Your task to perform on an android device: add a contact Image 0: 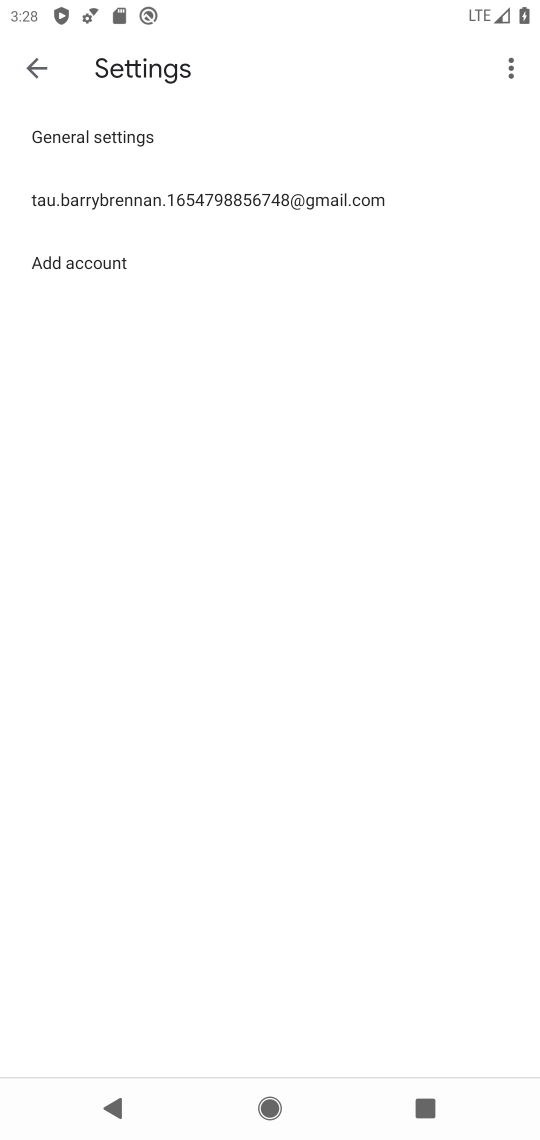
Step 0: press home button
Your task to perform on an android device: add a contact Image 1: 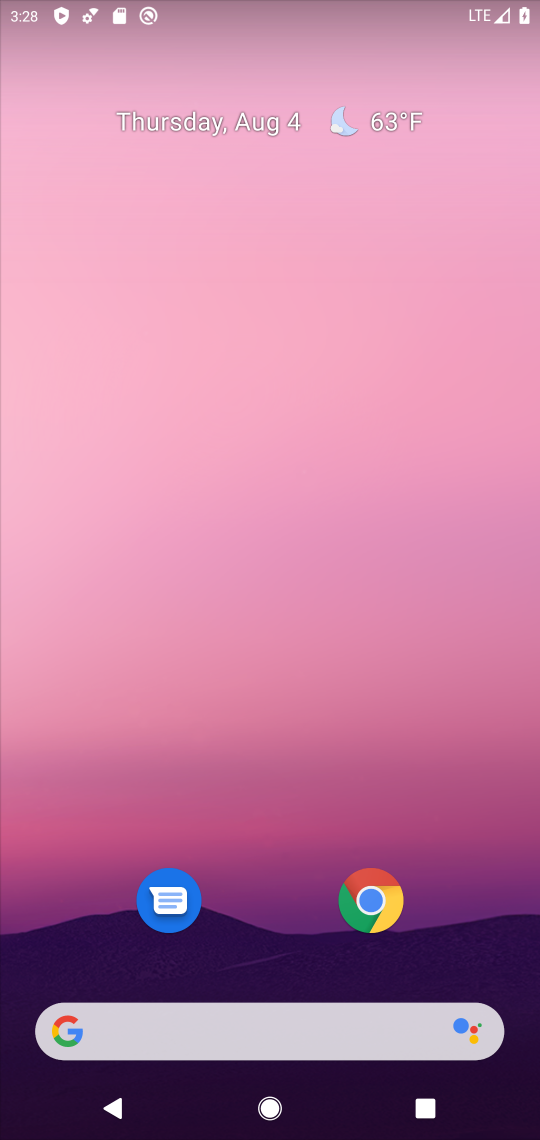
Step 1: drag from (510, 944) to (347, 166)
Your task to perform on an android device: add a contact Image 2: 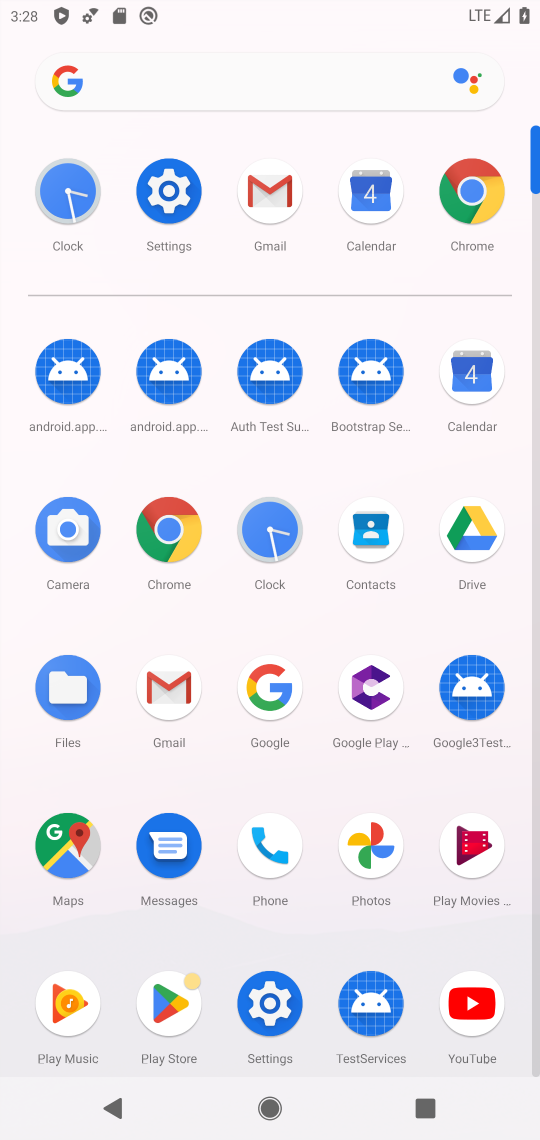
Step 2: click (389, 518)
Your task to perform on an android device: add a contact Image 3: 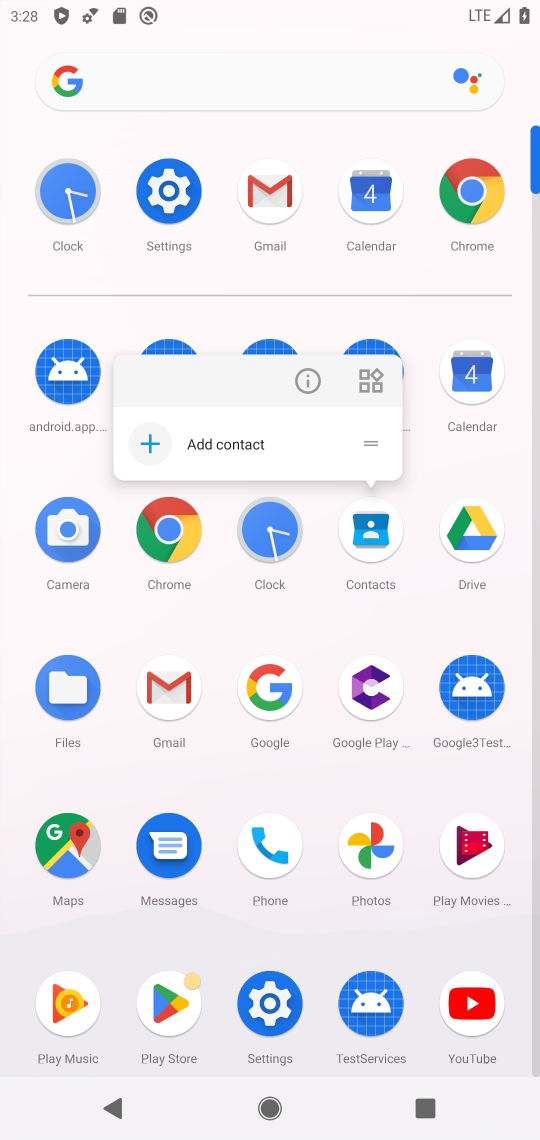
Step 3: click (389, 518)
Your task to perform on an android device: add a contact Image 4: 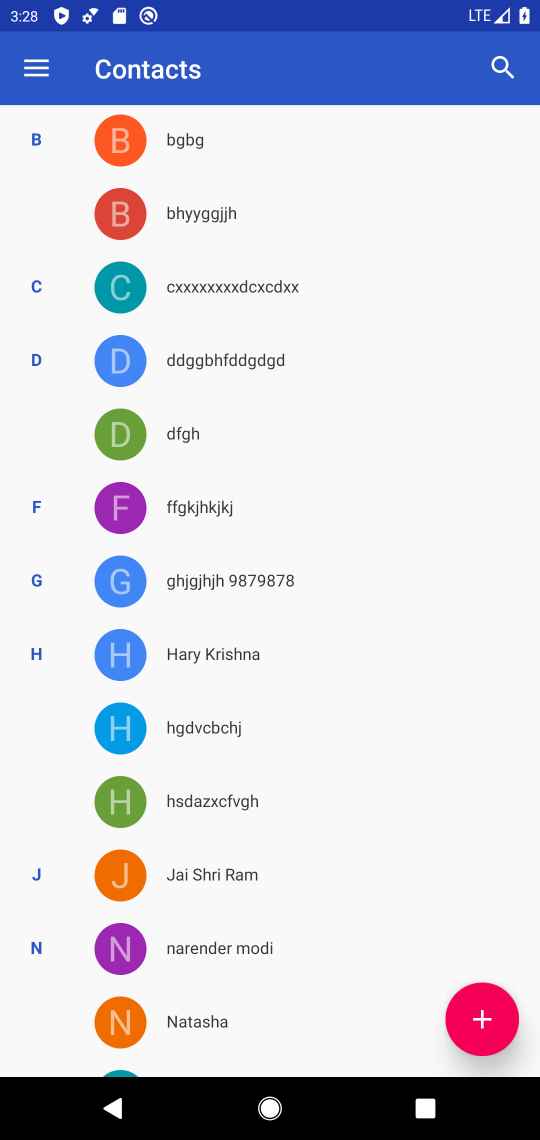
Step 4: click (484, 1019)
Your task to perform on an android device: add a contact Image 5: 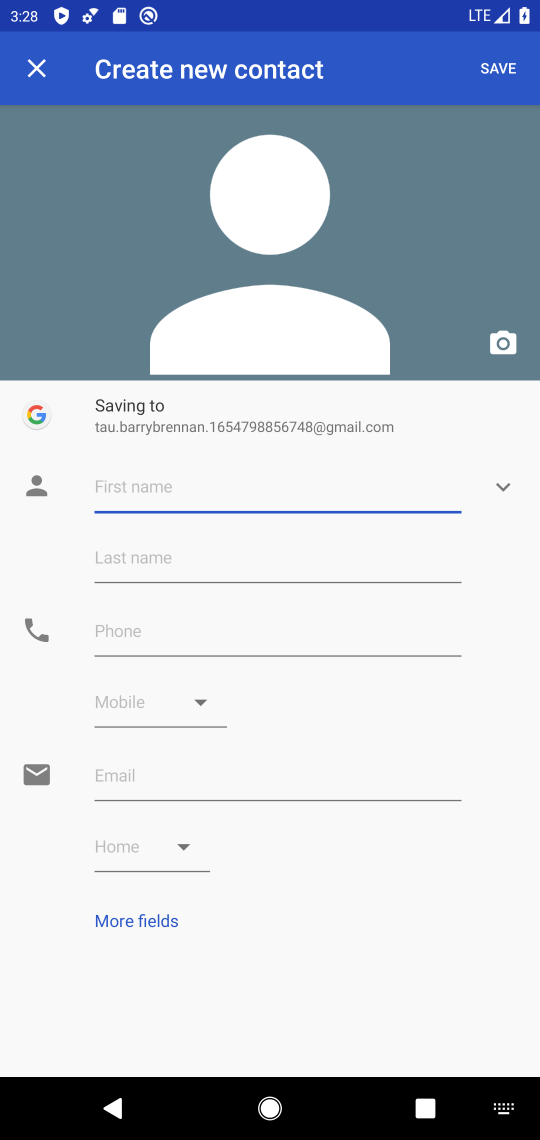
Step 5: click (268, 454)
Your task to perform on an android device: add a contact Image 6: 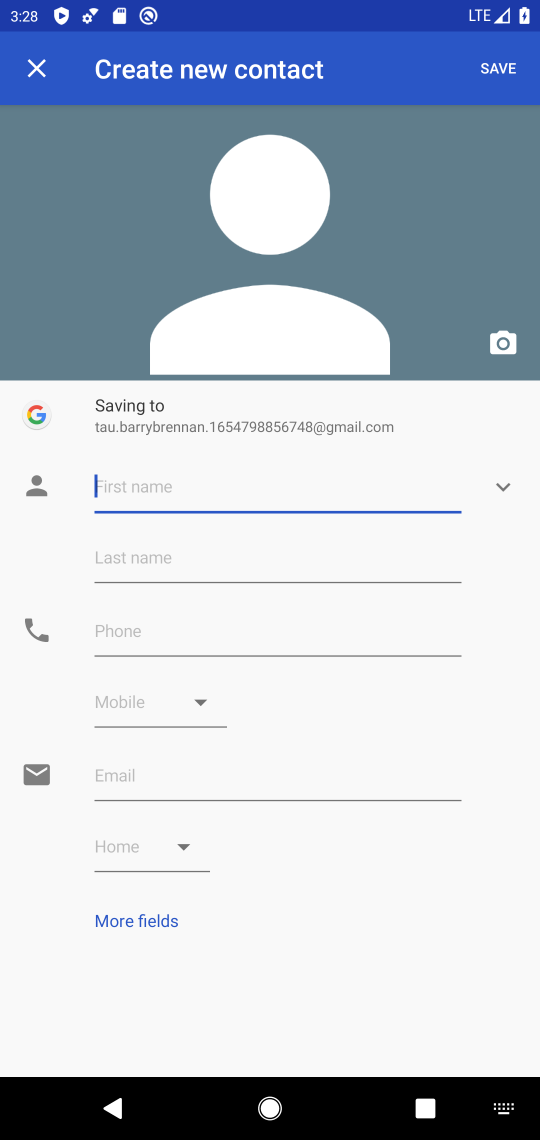
Step 6: type "njk kn"
Your task to perform on an android device: add a contact Image 7: 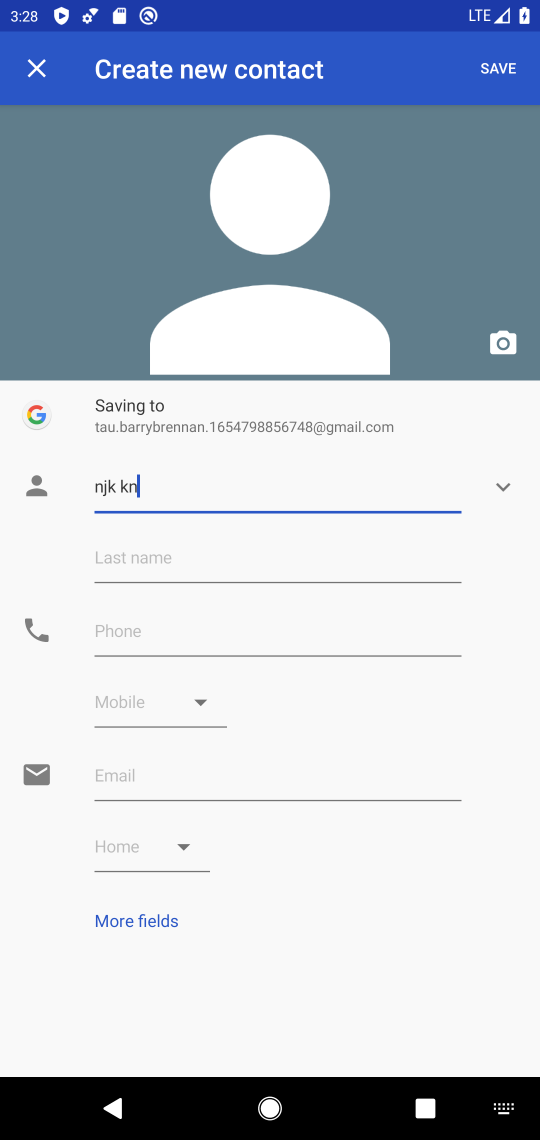
Step 7: click (425, 638)
Your task to perform on an android device: add a contact Image 8: 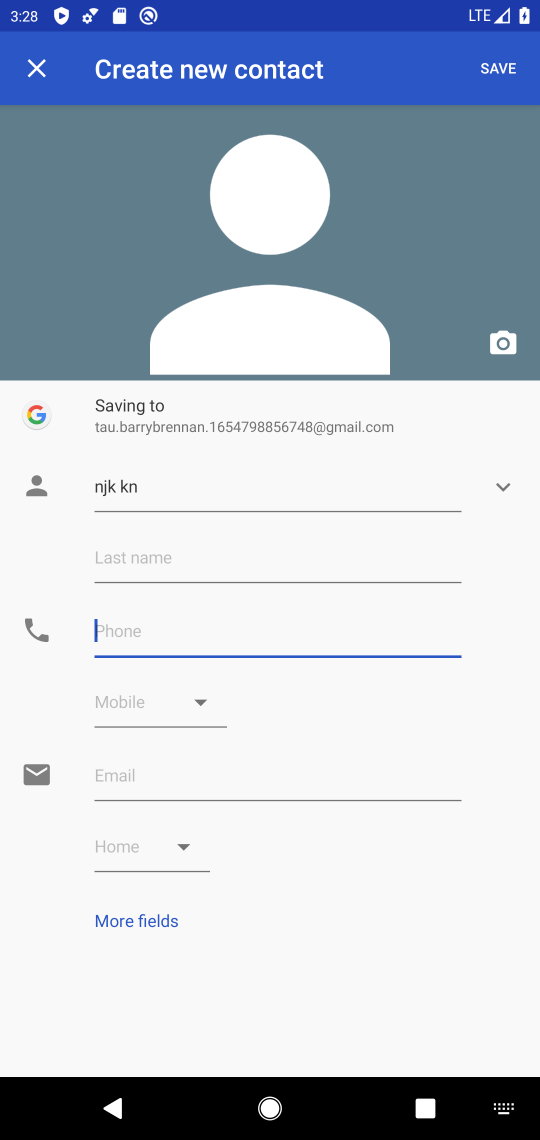
Step 8: type "798798"
Your task to perform on an android device: add a contact Image 9: 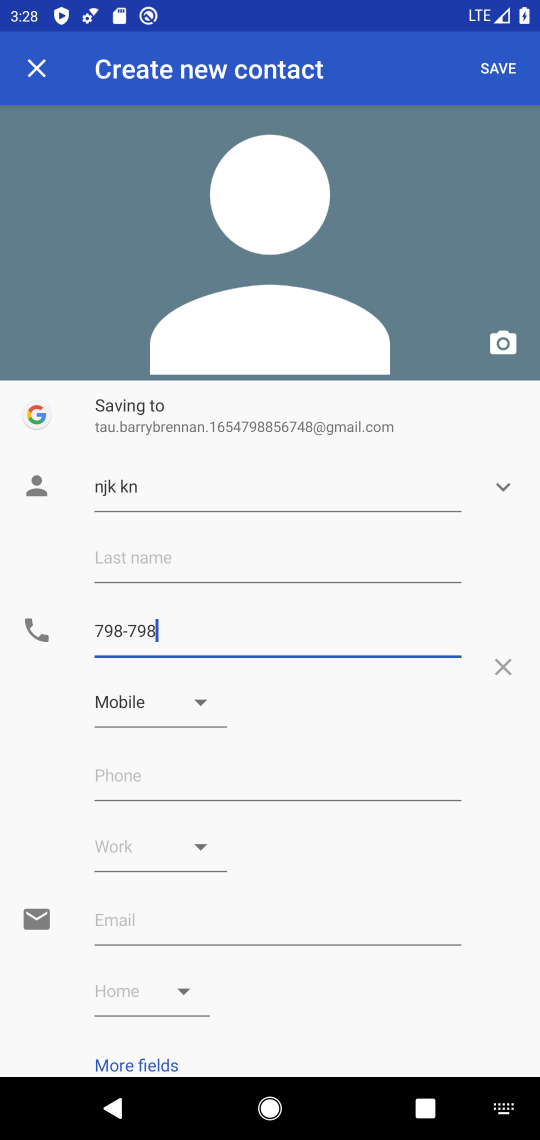
Step 9: click (500, 80)
Your task to perform on an android device: add a contact Image 10: 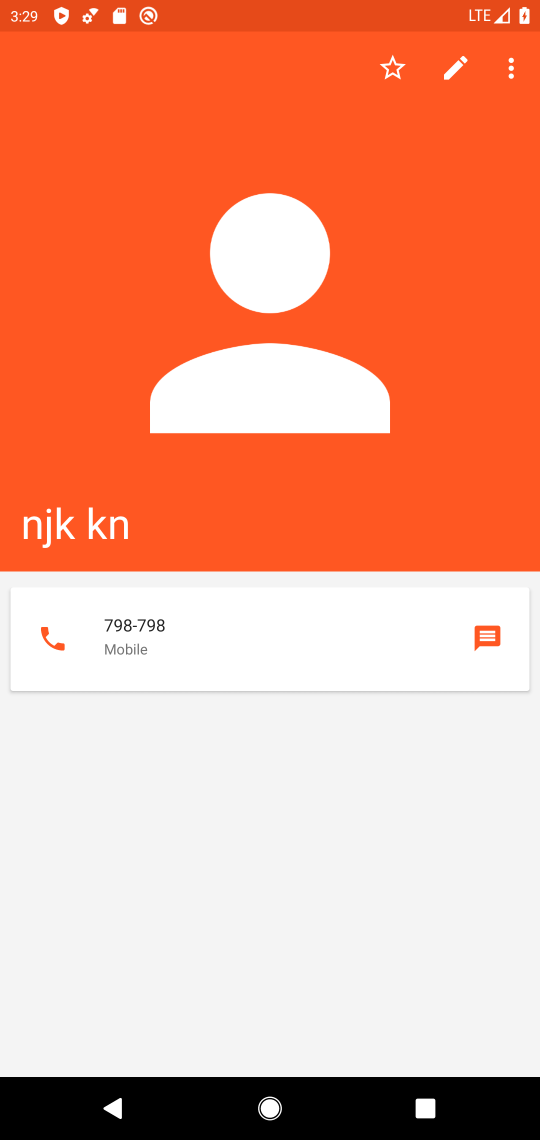
Step 10: task complete